Your task to perform on an android device: allow cookies in the chrome app Image 0: 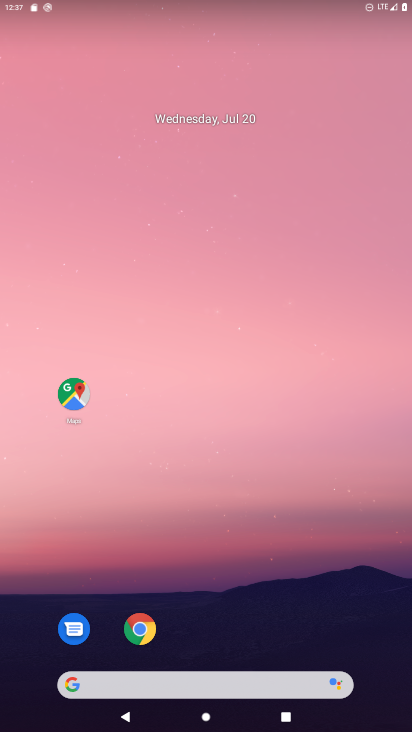
Step 0: click (137, 626)
Your task to perform on an android device: allow cookies in the chrome app Image 1: 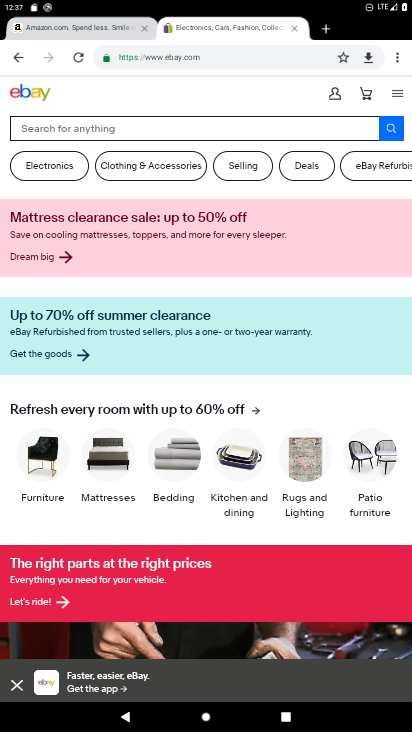
Step 1: click (395, 55)
Your task to perform on an android device: allow cookies in the chrome app Image 2: 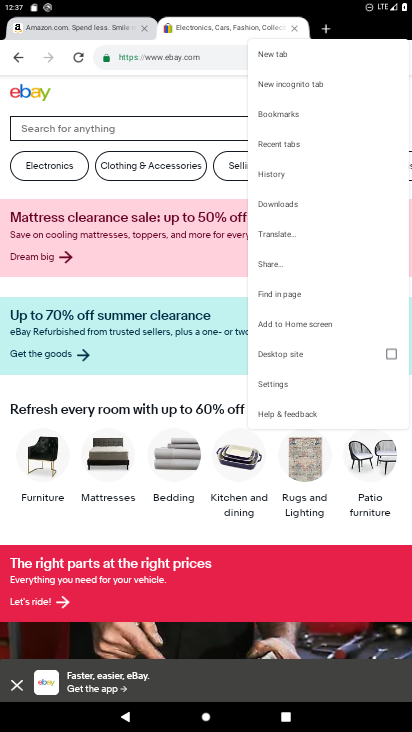
Step 2: click (284, 380)
Your task to perform on an android device: allow cookies in the chrome app Image 3: 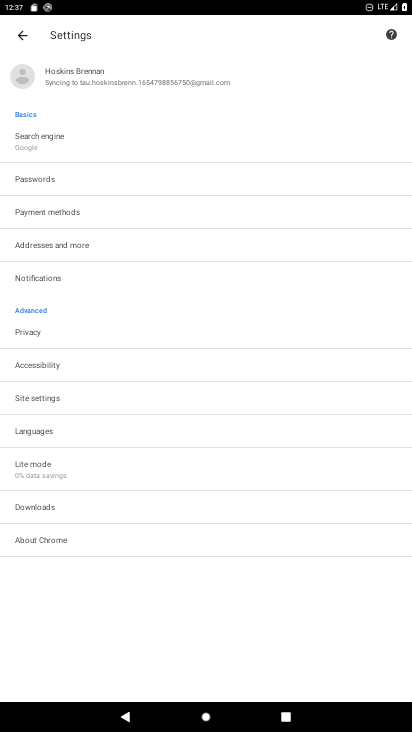
Step 3: click (47, 398)
Your task to perform on an android device: allow cookies in the chrome app Image 4: 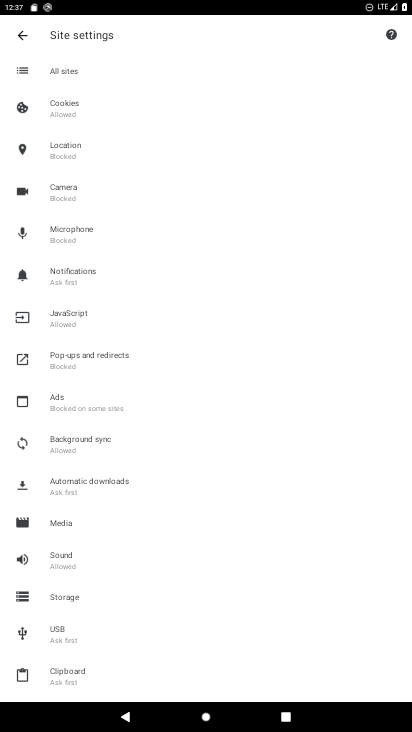
Step 4: click (63, 112)
Your task to perform on an android device: allow cookies in the chrome app Image 5: 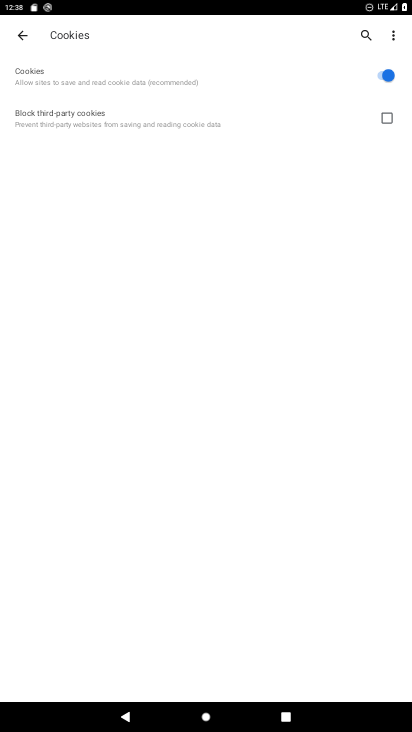
Step 5: task complete